Your task to perform on an android device: turn on location history Image 0: 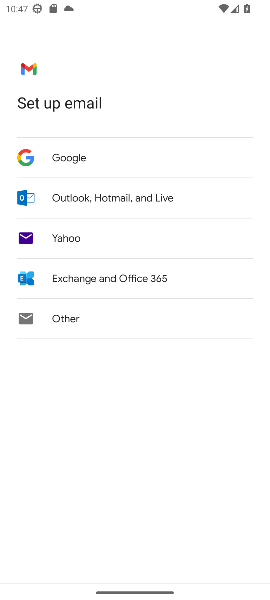
Step 0: press home button
Your task to perform on an android device: turn on location history Image 1: 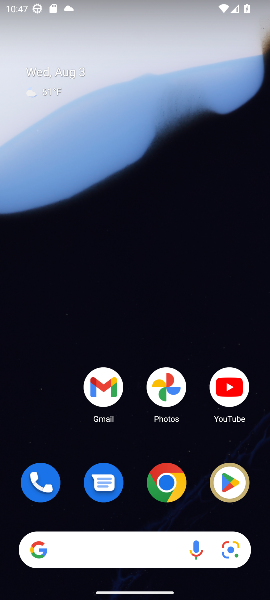
Step 1: drag from (133, 517) to (111, 124)
Your task to perform on an android device: turn on location history Image 2: 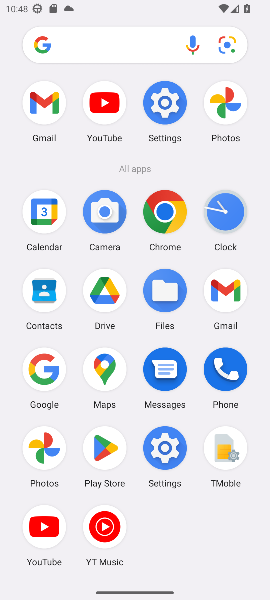
Step 2: click (180, 450)
Your task to perform on an android device: turn on location history Image 3: 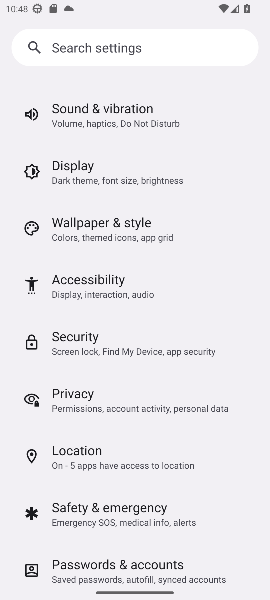
Step 3: click (115, 451)
Your task to perform on an android device: turn on location history Image 4: 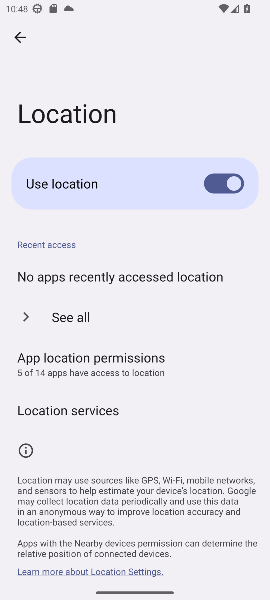
Step 4: task complete